Your task to perform on an android device: Open the web browser Image 0: 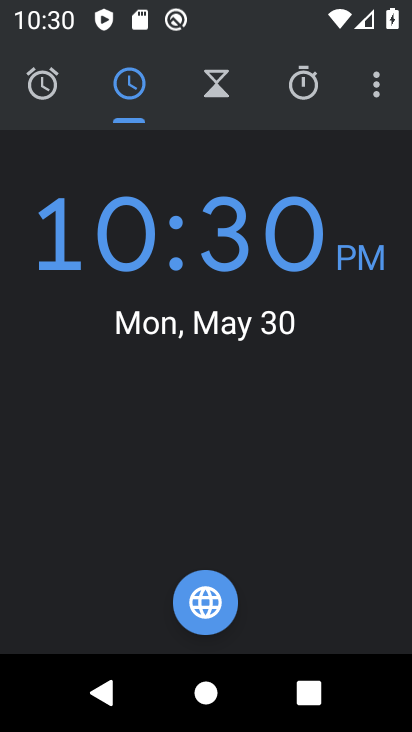
Step 0: press home button
Your task to perform on an android device: Open the web browser Image 1: 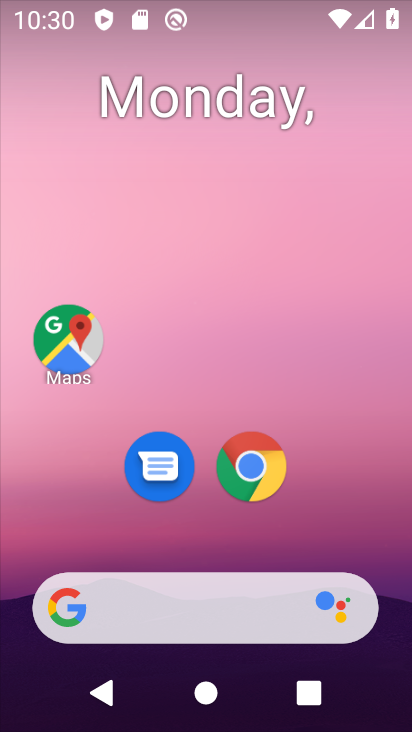
Step 1: drag from (65, 553) to (211, 25)
Your task to perform on an android device: Open the web browser Image 2: 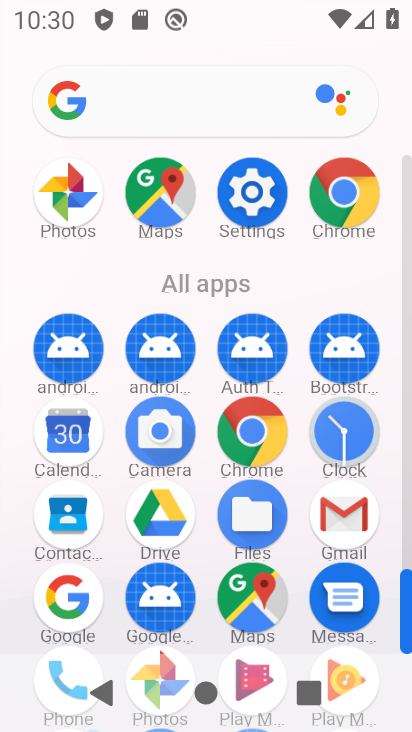
Step 2: drag from (151, 628) to (206, 397)
Your task to perform on an android device: Open the web browser Image 3: 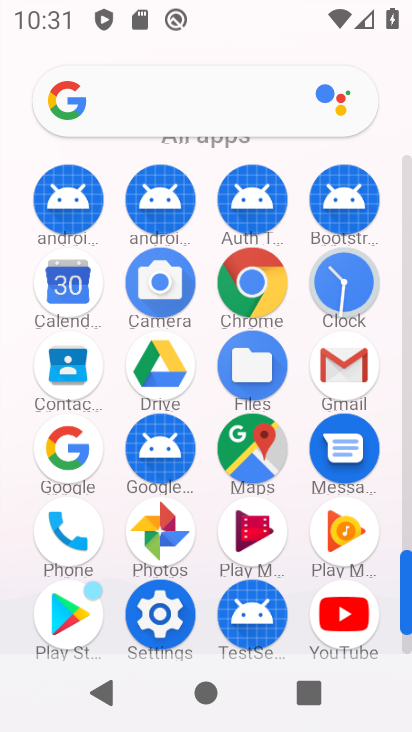
Step 3: click (64, 439)
Your task to perform on an android device: Open the web browser Image 4: 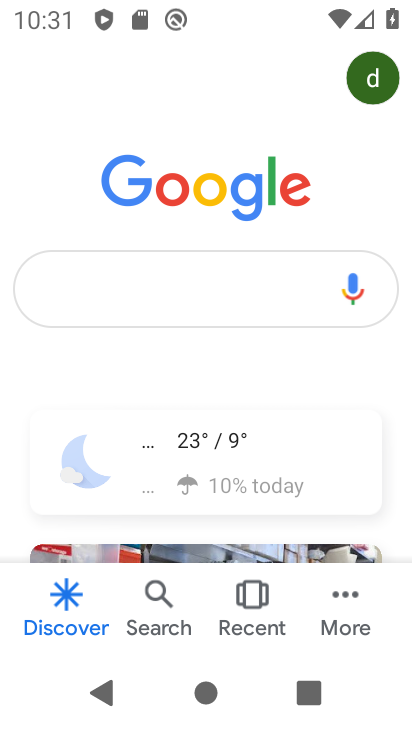
Step 4: task complete